Your task to perform on an android device: When is my next appointment? Image 0: 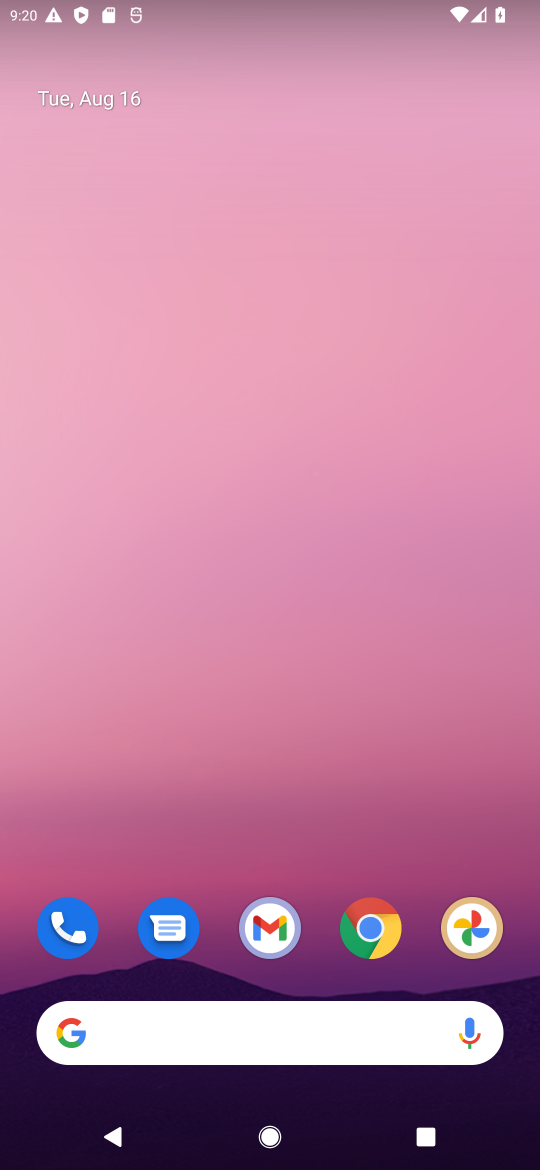
Step 0: press home button
Your task to perform on an android device: When is my next appointment? Image 1: 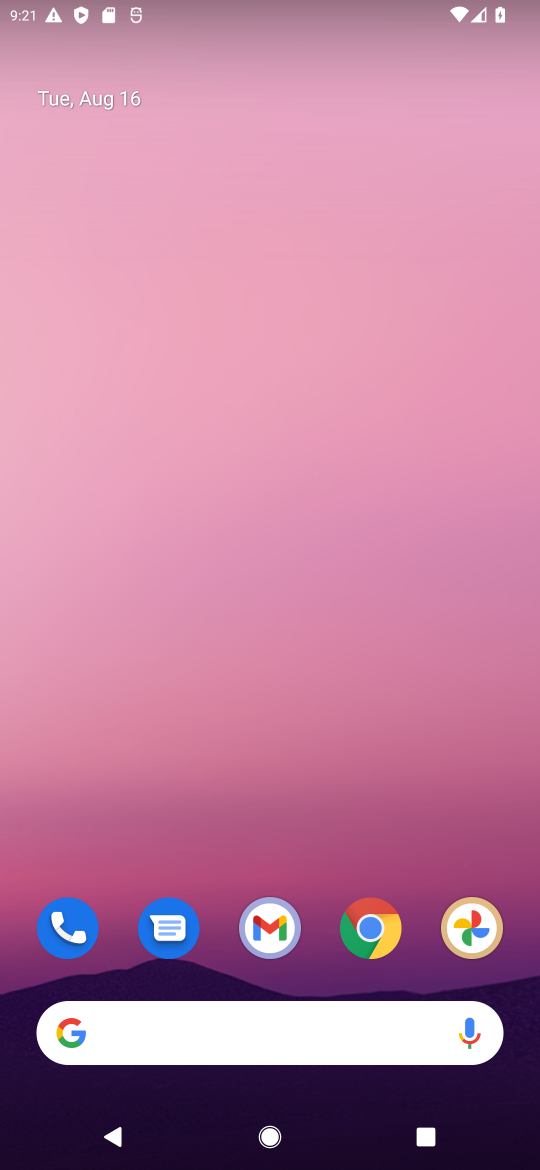
Step 1: drag from (316, 695) to (249, 145)
Your task to perform on an android device: When is my next appointment? Image 2: 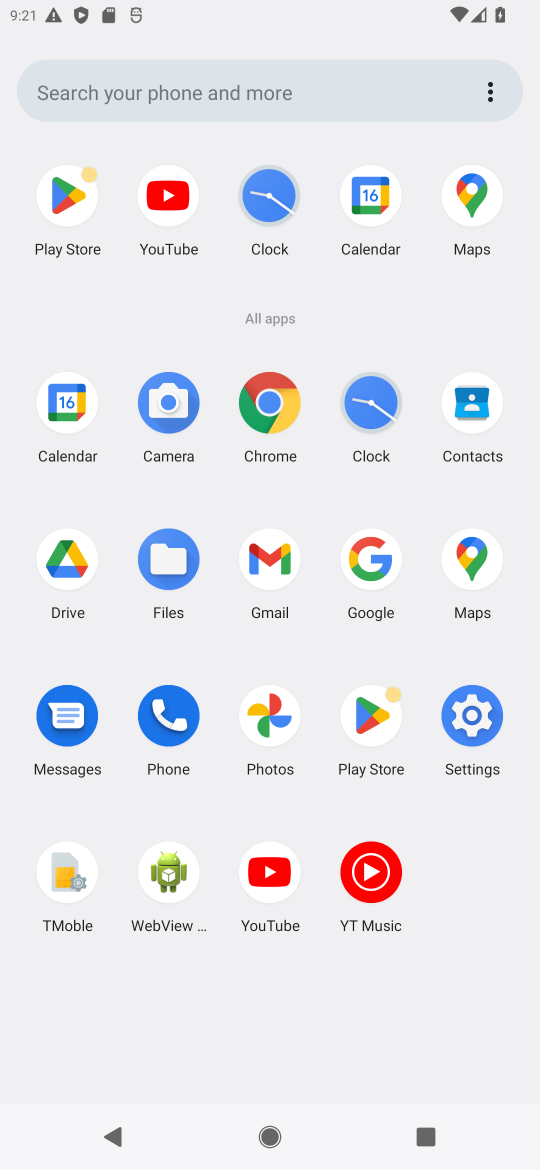
Step 2: click (52, 395)
Your task to perform on an android device: When is my next appointment? Image 3: 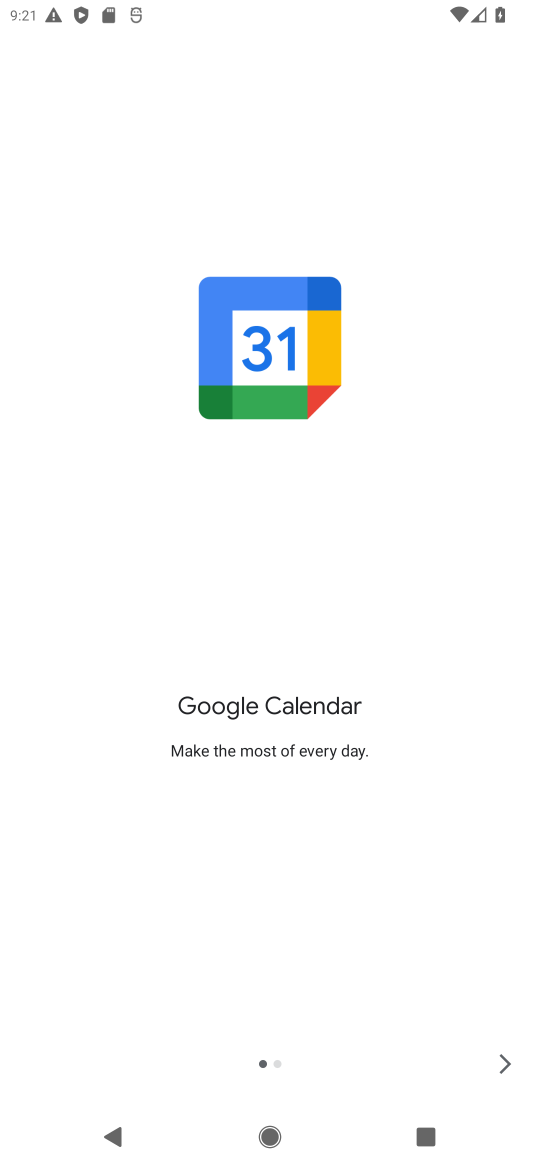
Step 3: click (506, 1075)
Your task to perform on an android device: When is my next appointment? Image 4: 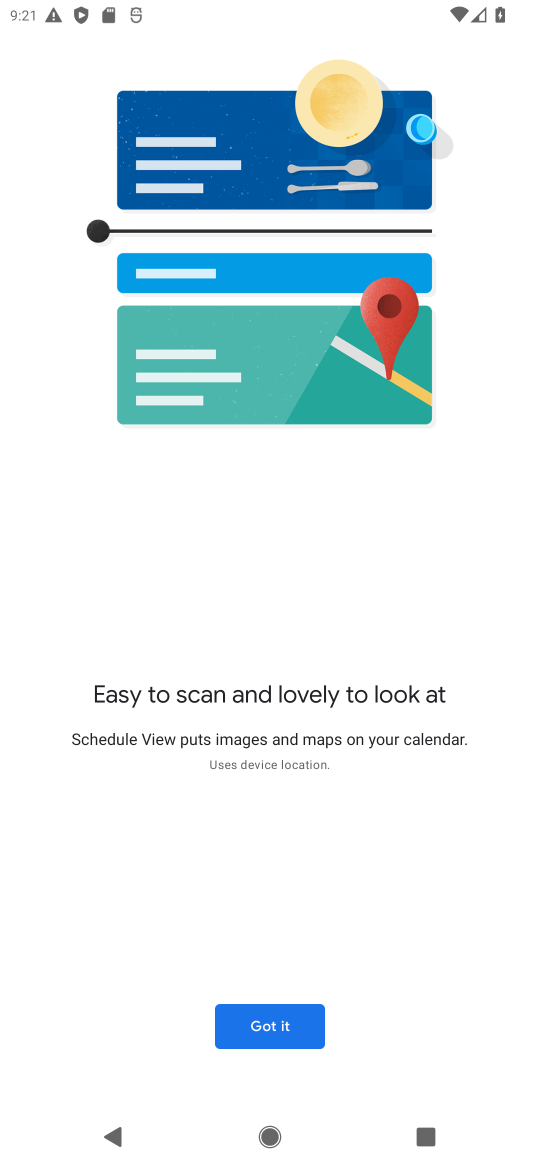
Step 4: click (286, 1040)
Your task to perform on an android device: When is my next appointment? Image 5: 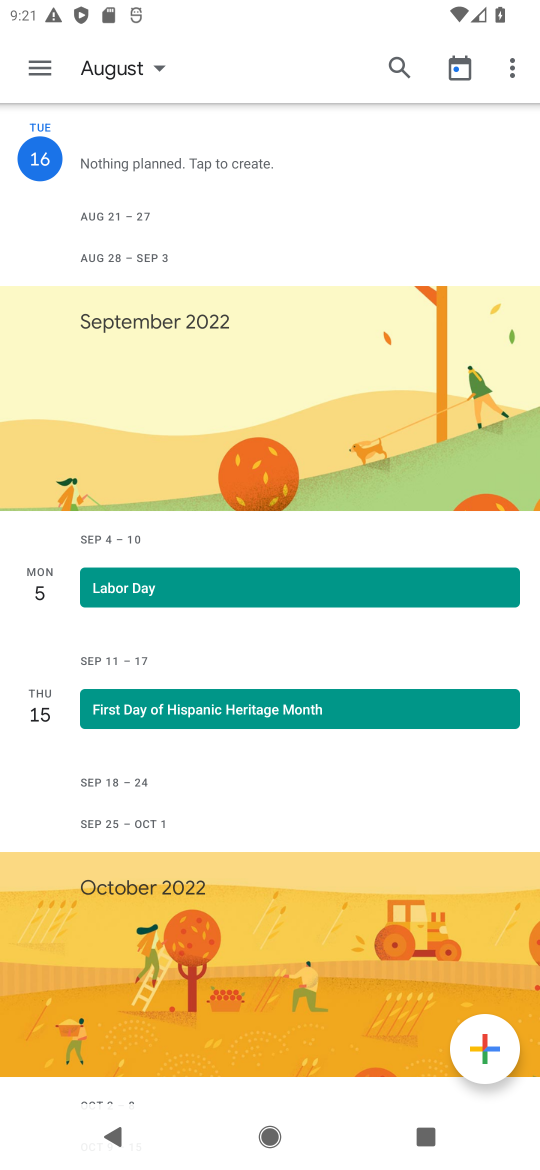
Step 5: click (51, 64)
Your task to perform on an android device: When is my next appointment? Image 6: 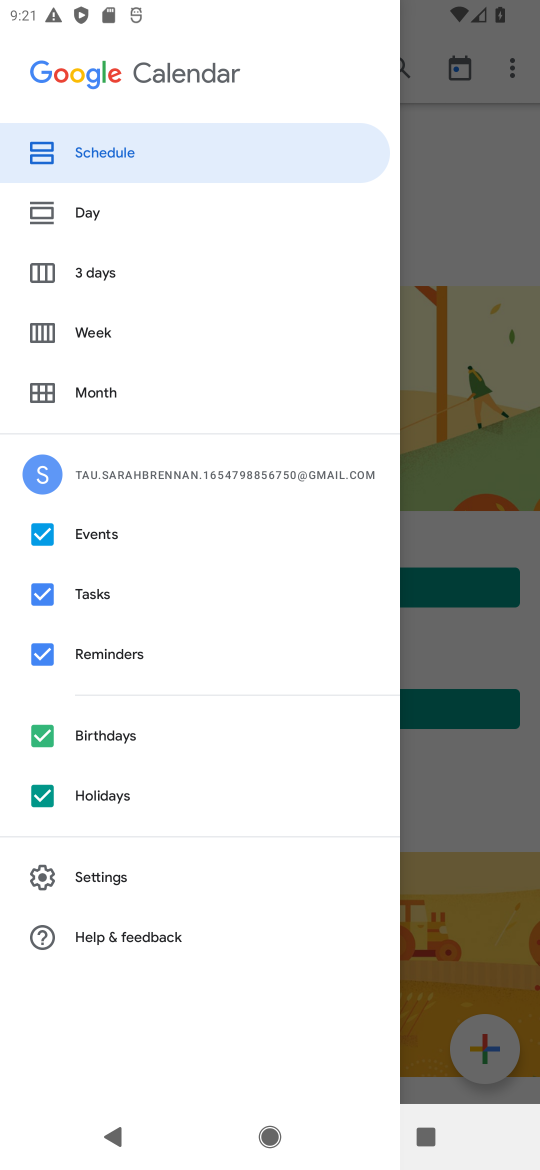
Step 6: click (103, 156)
Your task to perform on an android device: When is my next appointment? Image 7: 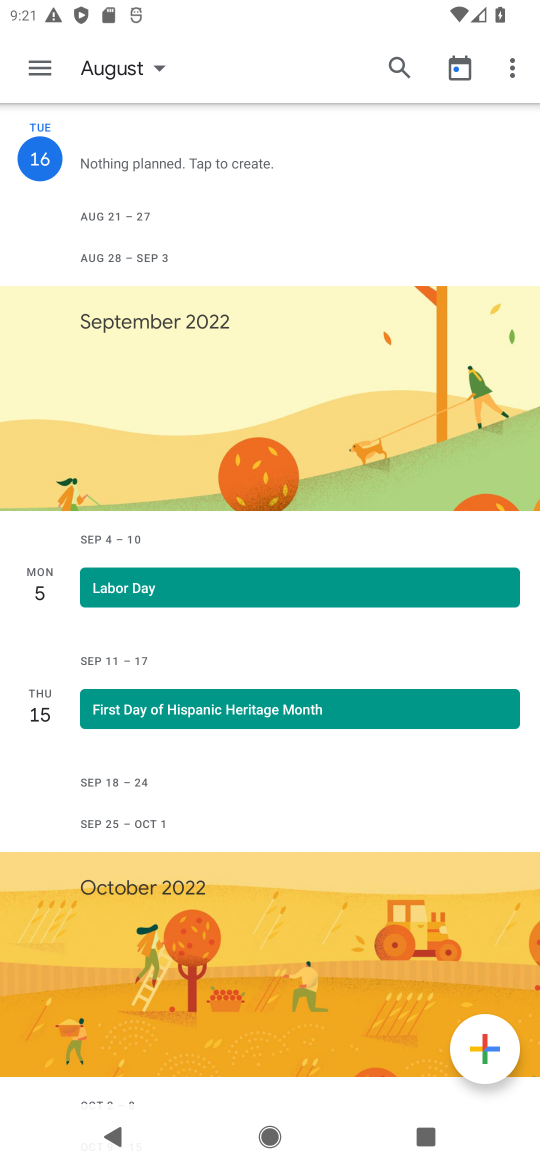
Step 7: task complete